Your task to perform on an android device: Search for seafood restaurants on Google Maps Image 0: 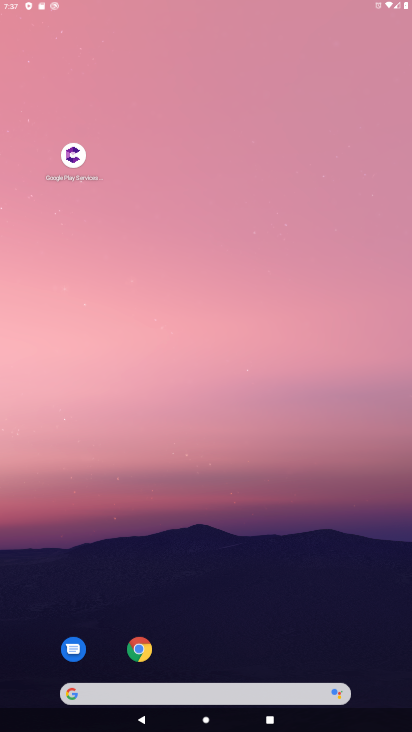
Step 0: click (244, 430)
Your task to perform on an android device: Search for seafood restaurants on Google Maps Image 1: 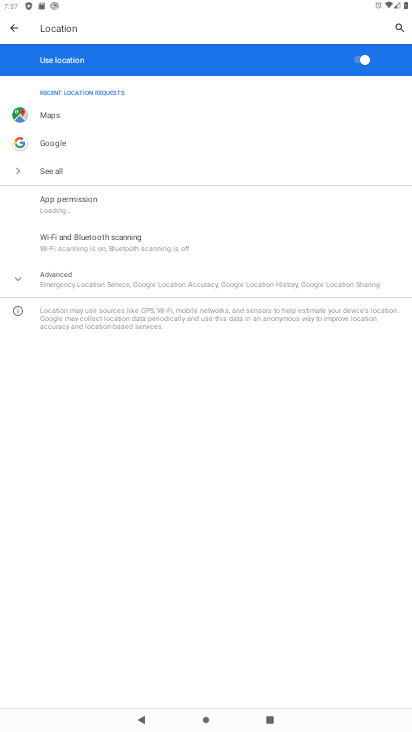
Step 1: press home button
Your task to perform on an android device: Search for seafood restaurants on Google Maps Image 2: 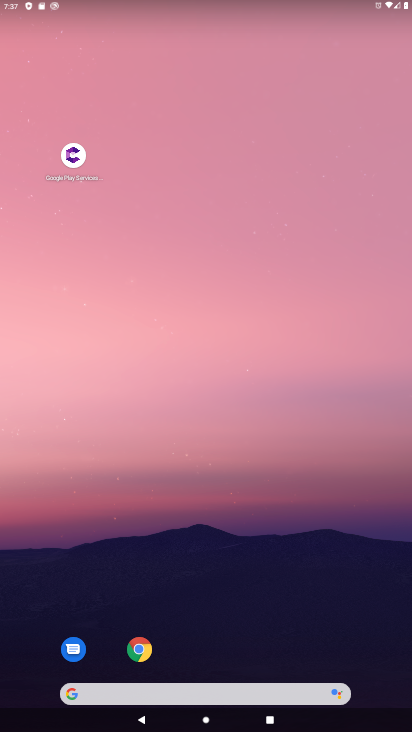
Step 2: drag from (213, 655) to (233, 27)
Your task to perform on an android device: Search for seafood restaurants on Google Maps Image 3: 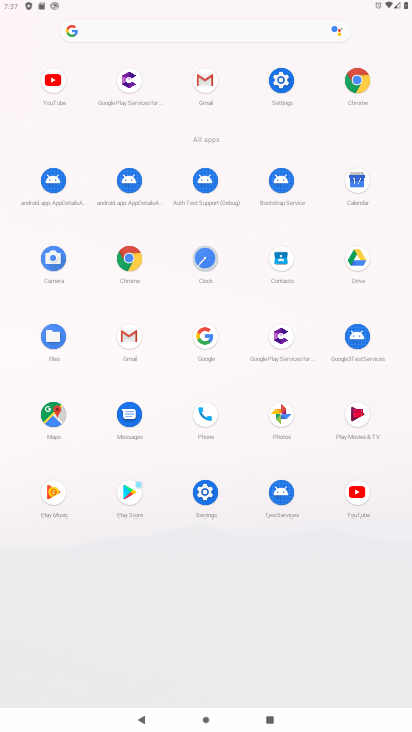
Step 3: click (62, 412)
Your task to perform on an android device: Search for seafood restaurants on Google Maps Image 4: 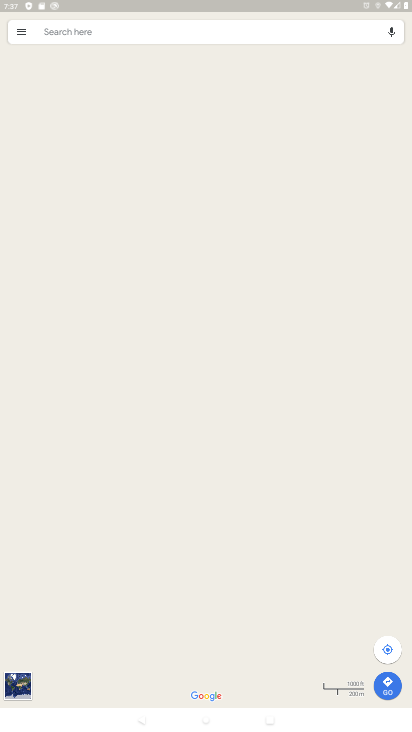
Step 4: click (158, 28)
Your task to perform on an android device: Search for seafood restaurants on Google Maps Image 5: 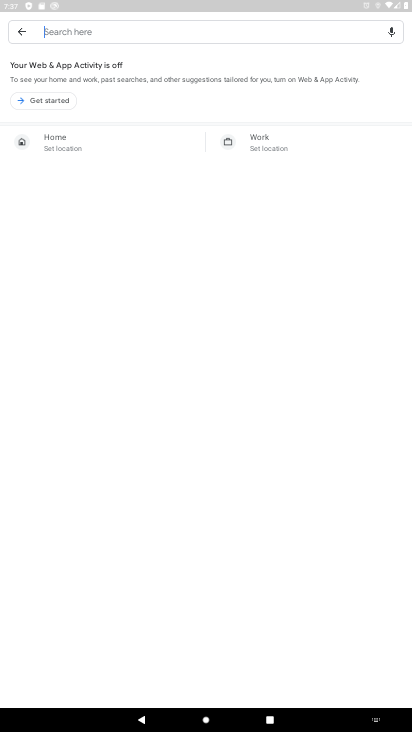
Step 5: type "seafood restaurants"
Your task to perform on an android device: Search for seafood restaurants on Google Maps Image 6: 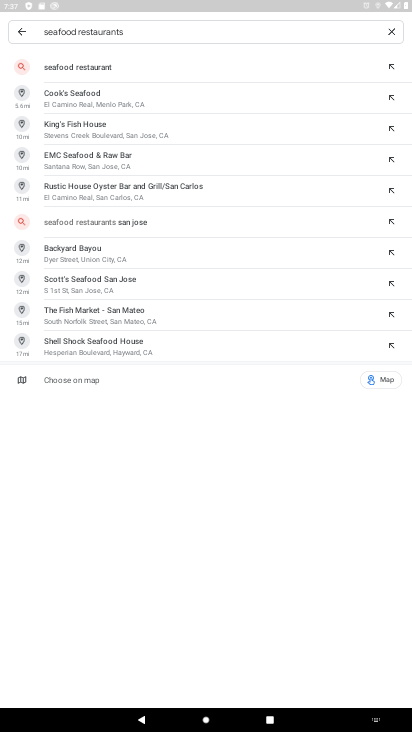
Step 6: click (188, 67)
Your task to perform on an android device: Search for seafood restaurants on Google Maps Image 7: 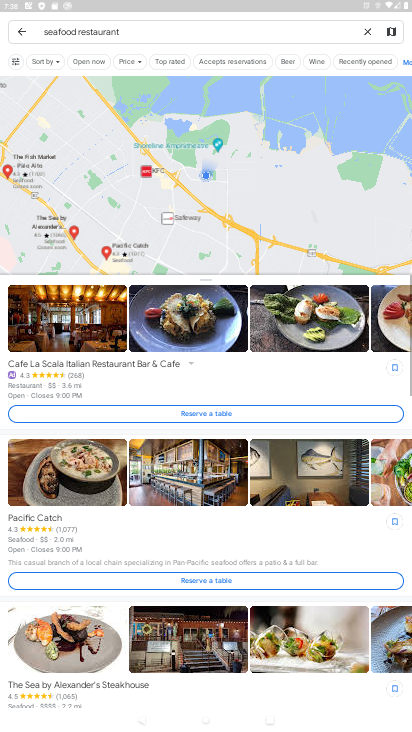
Step 7: task complete